Your task to perform on an android device: Open ESPN.com Image 0: 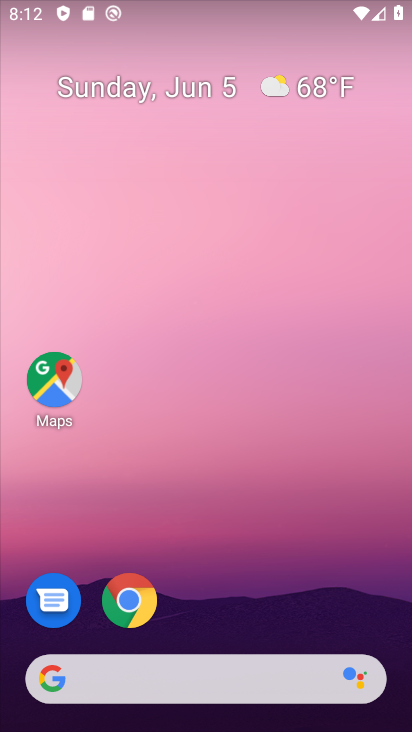
Step 0: click (138, 594)
Your task to perform on an android device: Open ESPN.com Image 1: 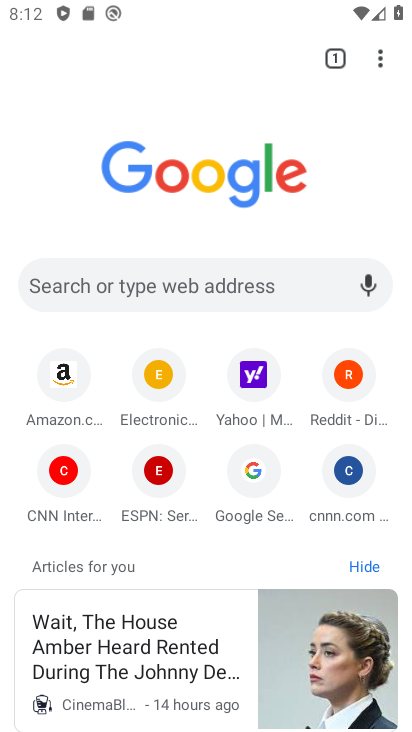
Step 1: click (162, 275)
Your task to perform on an android device: Open ESPN.com Image 2: 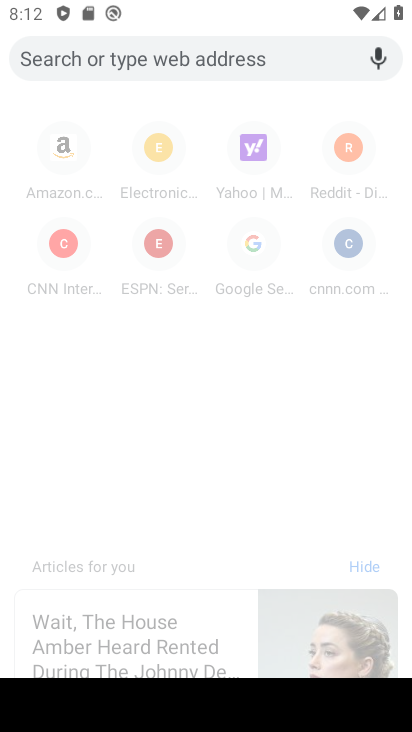
Step 2: type "ESPN.com"
Your task to perform on an android device: Open ESPN.com Image 3: 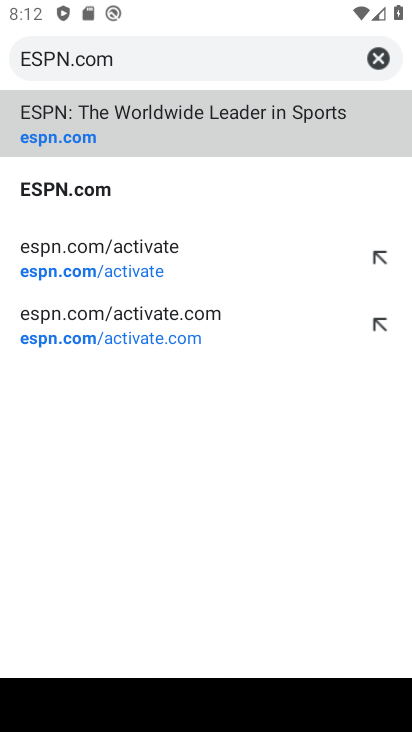
Step 3: click (91, 125)
Your task to perform on an android device: Open ESPN.com Image 4: 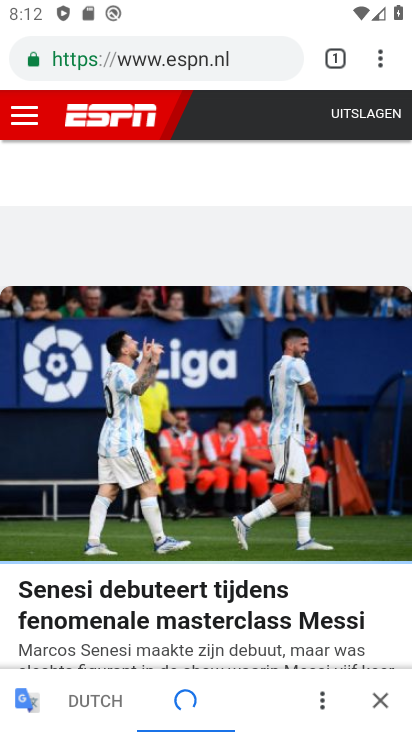
Step 4: task complete